Your task to perform on an android device: Go to CNN.com Image 0: 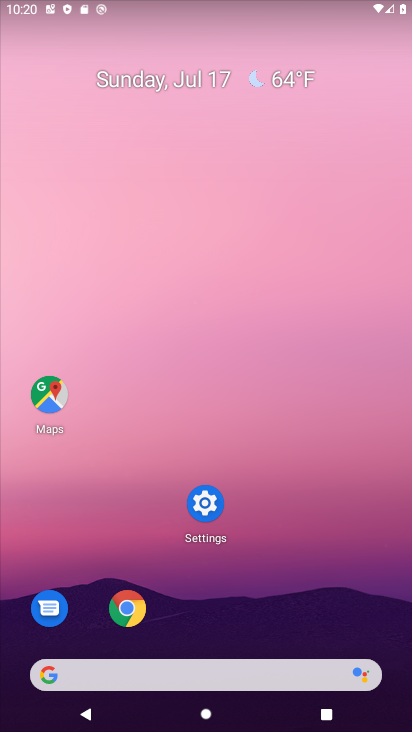
Step 0: click (120, 601)
Your task to perform on an android device: Go to CNN.com Image 1: 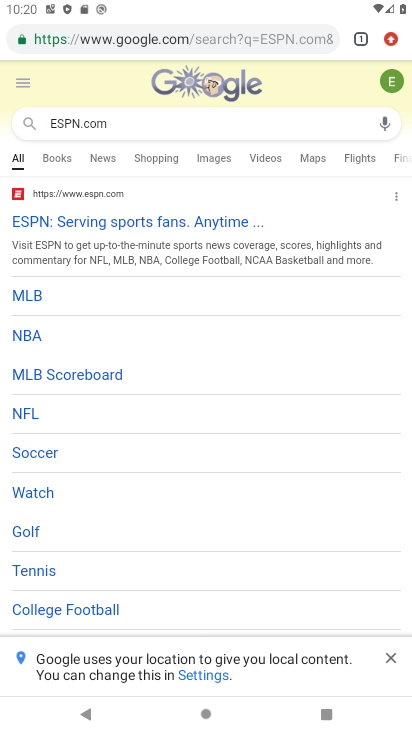
Step 1: click (258, 42)
Your task to perform on an android device: Go to CNN.com Image 2: 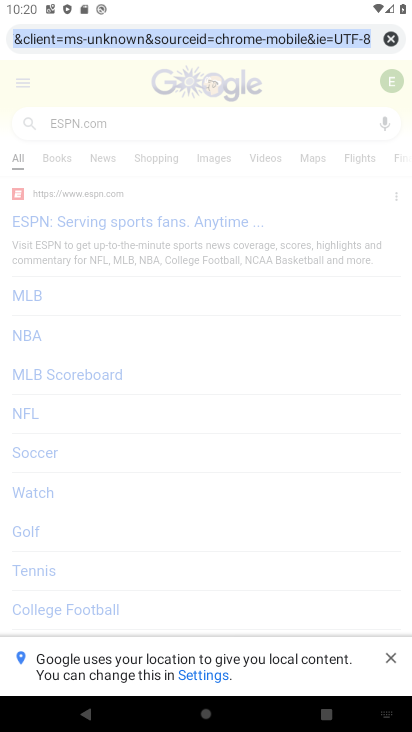
Step 2: click (392, 46)
Your task to perform on an android device: Go to CNN.com Image 3: 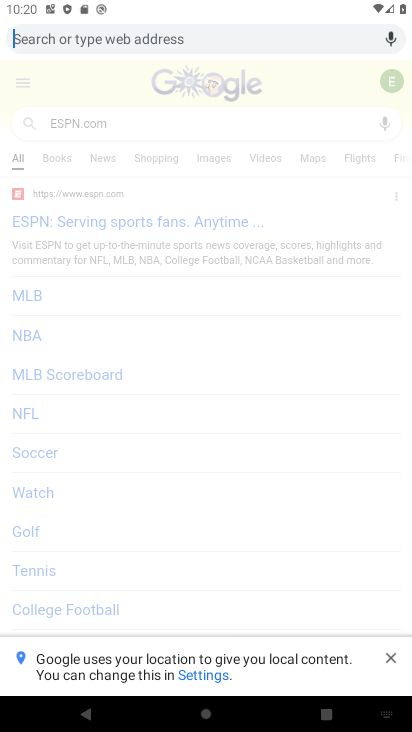
Step 3: type "CNN.com"
Your task to perform on an android device: Go to CNN.com Image 4: 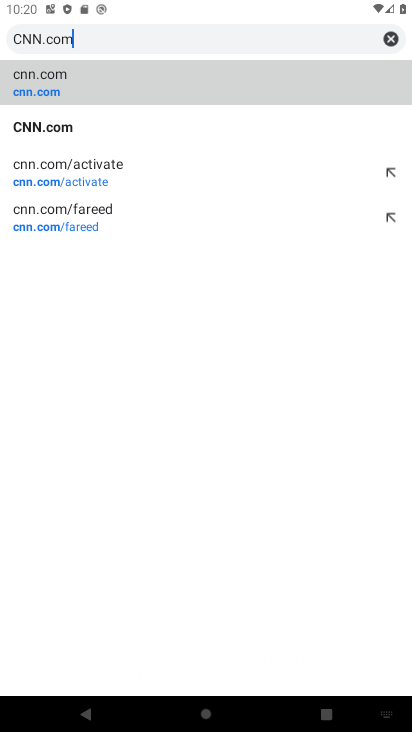
Step 4: click (44, 123)
Your task to perform on an android device: Go to CNN.com Image 5: 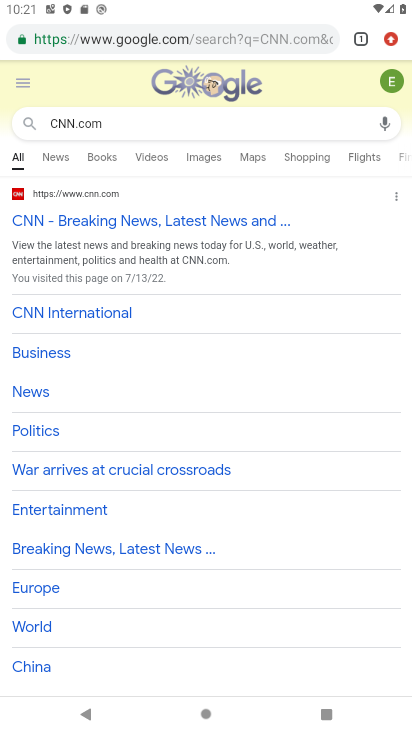
Step 5: task complete